Your task to perform on an android device: snooze an email in the gmail app Image 0: 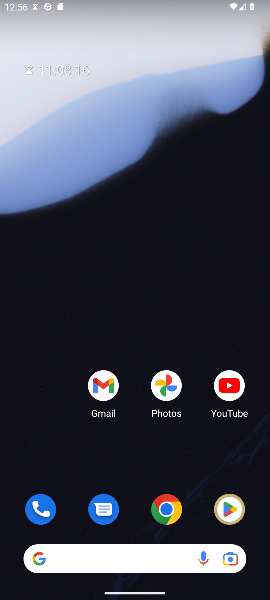
Step 0: click (114, 400)
Your task to perform on an android device: snooze an email in the gmail app Image 1: 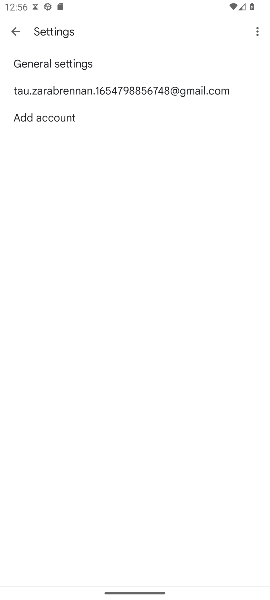
Step 1: press back button
Your task to perform on an android device: snooze an email in the gmail app Image 2: 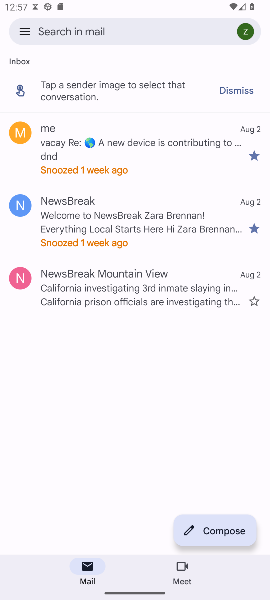
Step 2: click (115, 161)
Your task to perform on an android device: snooze an email in the gmail app Image 3: 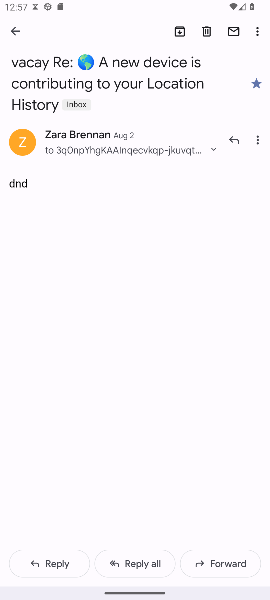
Step 3: click (263, 44)
Your task to perform on an android device: snooze an email in the gmail app Image 4: 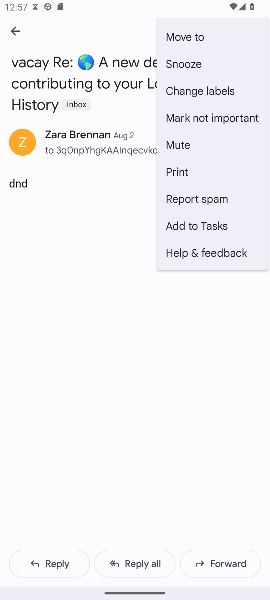
Step 4: click (195, 70)
Your task to perform on an android device: snooze an email in the gmail app Image 5: 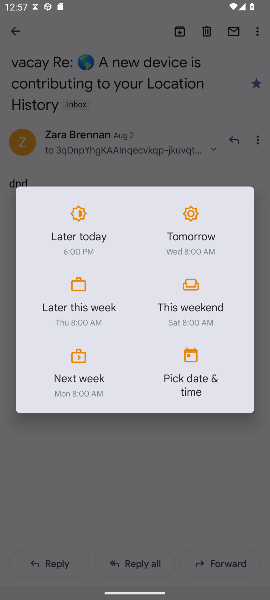
Step 5: click (77, 230)
Your task to perform on an android device: snooze an email in the gmail app Image 6: 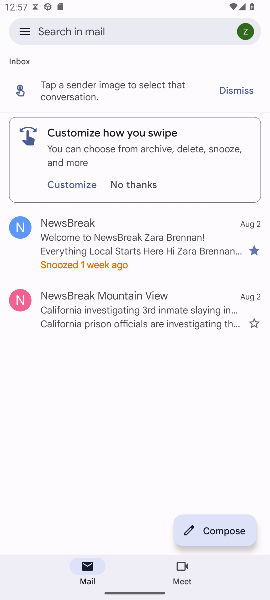
Step 6: click (133, 189)
Your task to perform on an android device: snooze an email in the gmail app Image 7: 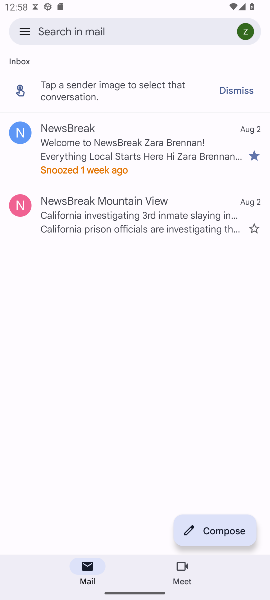
Step 7: task complete